Your task to perform on an android device: Open network settings Image 0: 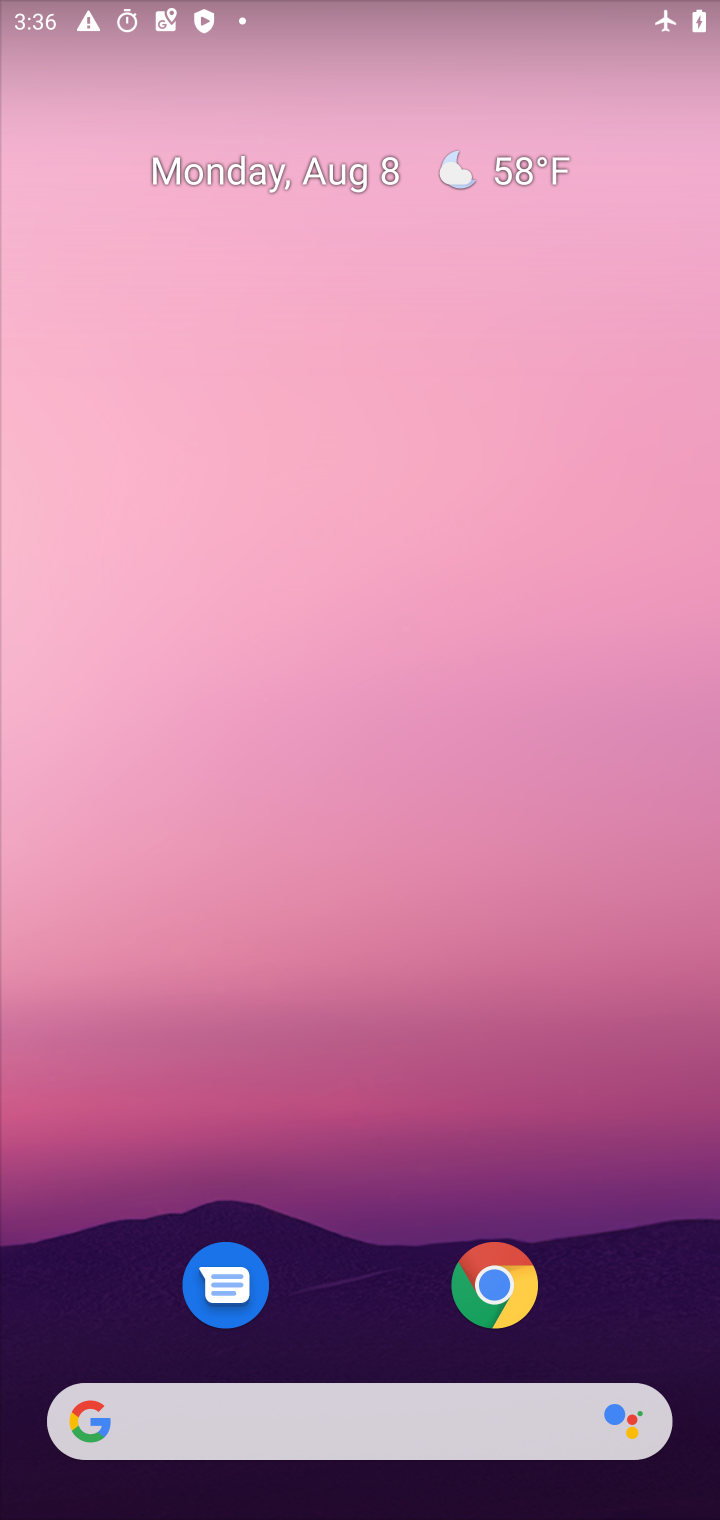
Step 0: drag from (375, 1162) to (429, 61)
Your task to perform on an android device: Open network settings Image 1: 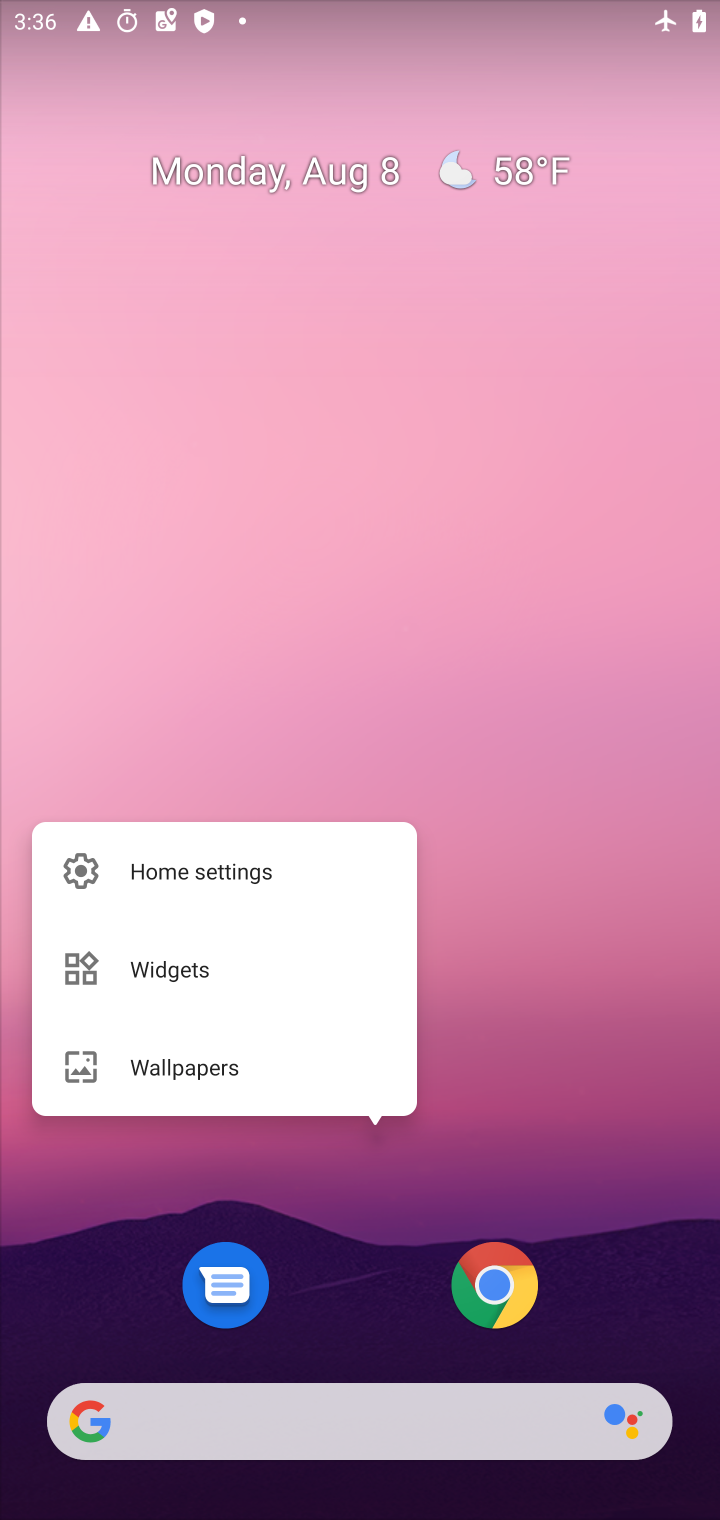
Step 1: drag from (306, 1270) to (498, 111)
Your task to perform on an android device: Open network settings Image 2: 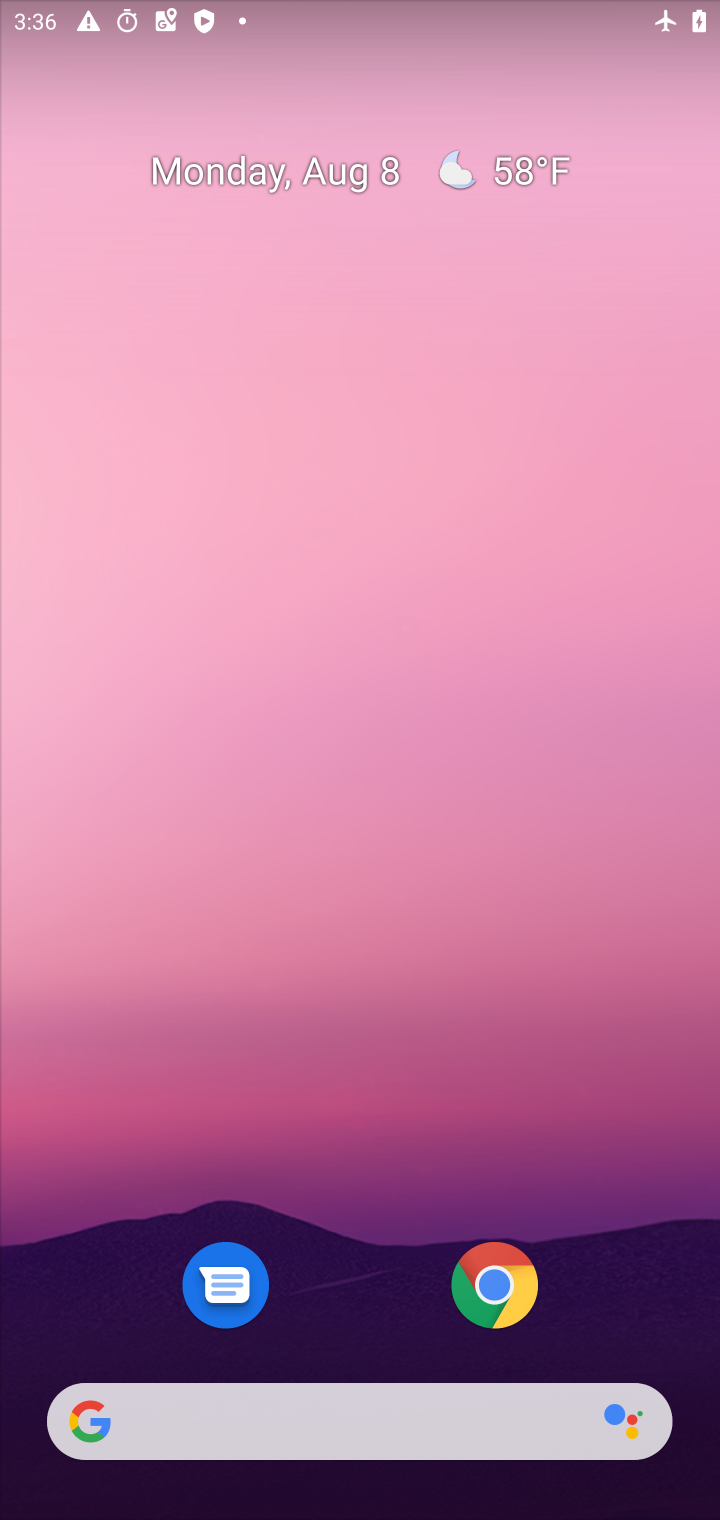
Step 2: drag from (345, 1291) to (401, 114)
Your task to perform on an android device: Open network settings Image 3: 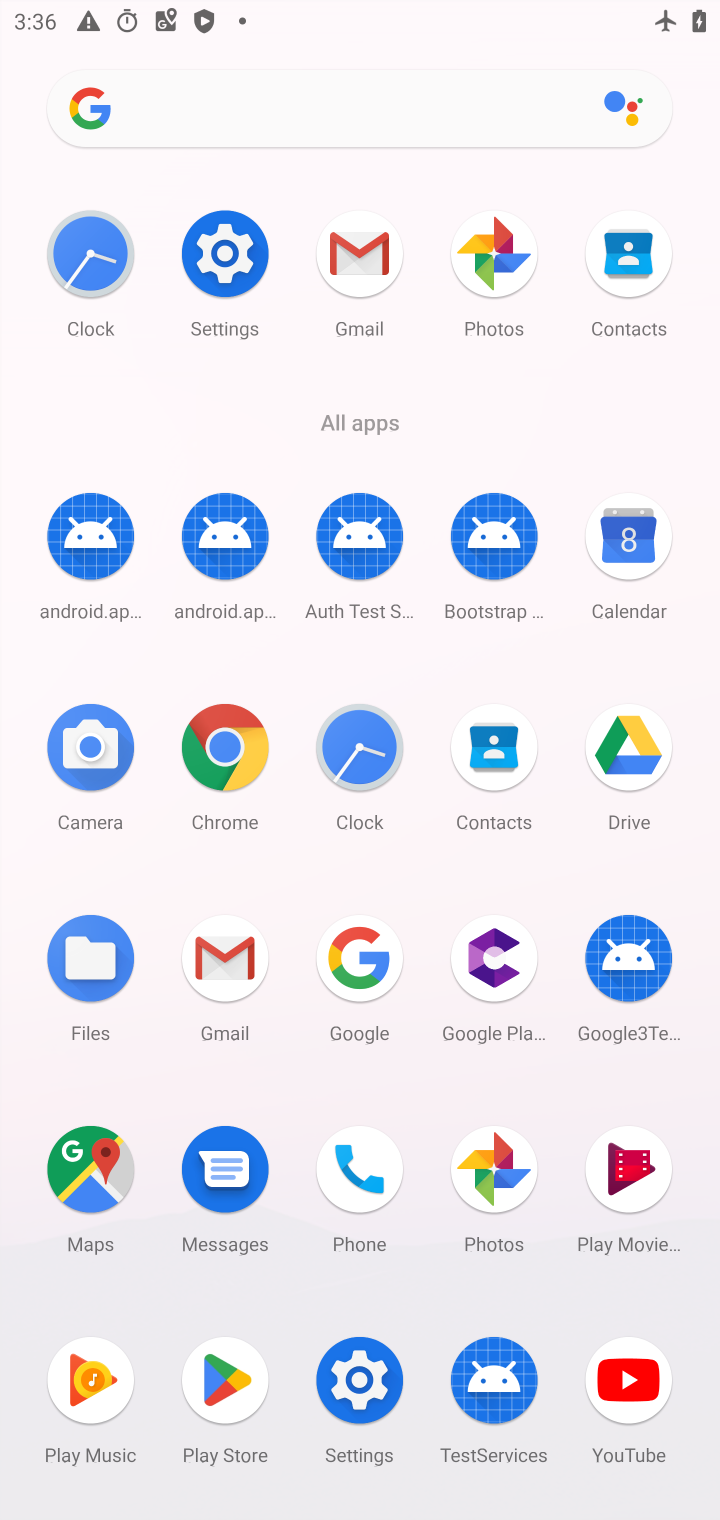
Step 3: click (229, 331)
Your task to perform on an android device: Open network settings Image 4: 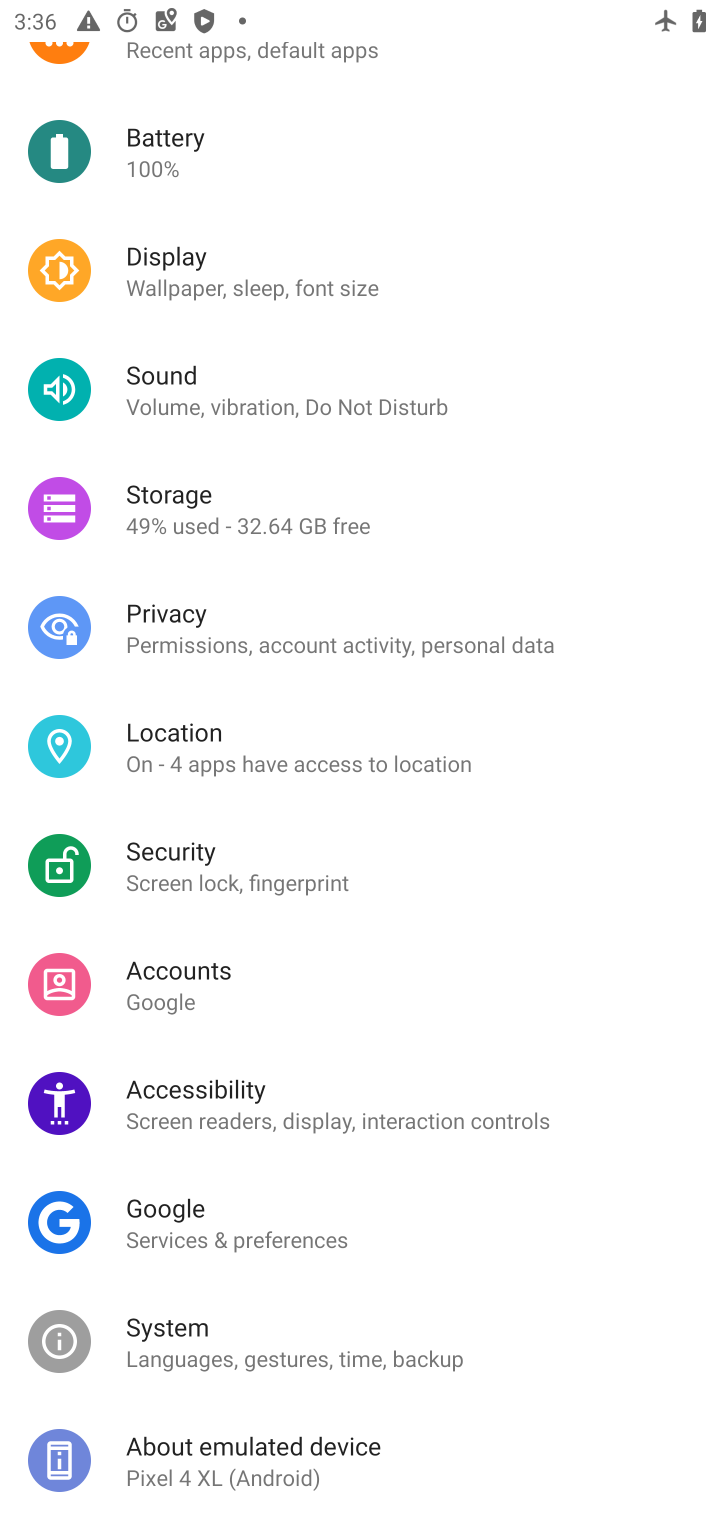
Step 4: drag from (296, 301) to (394, 1263)
Your task to perform on an android device: Open network settings Image 5: 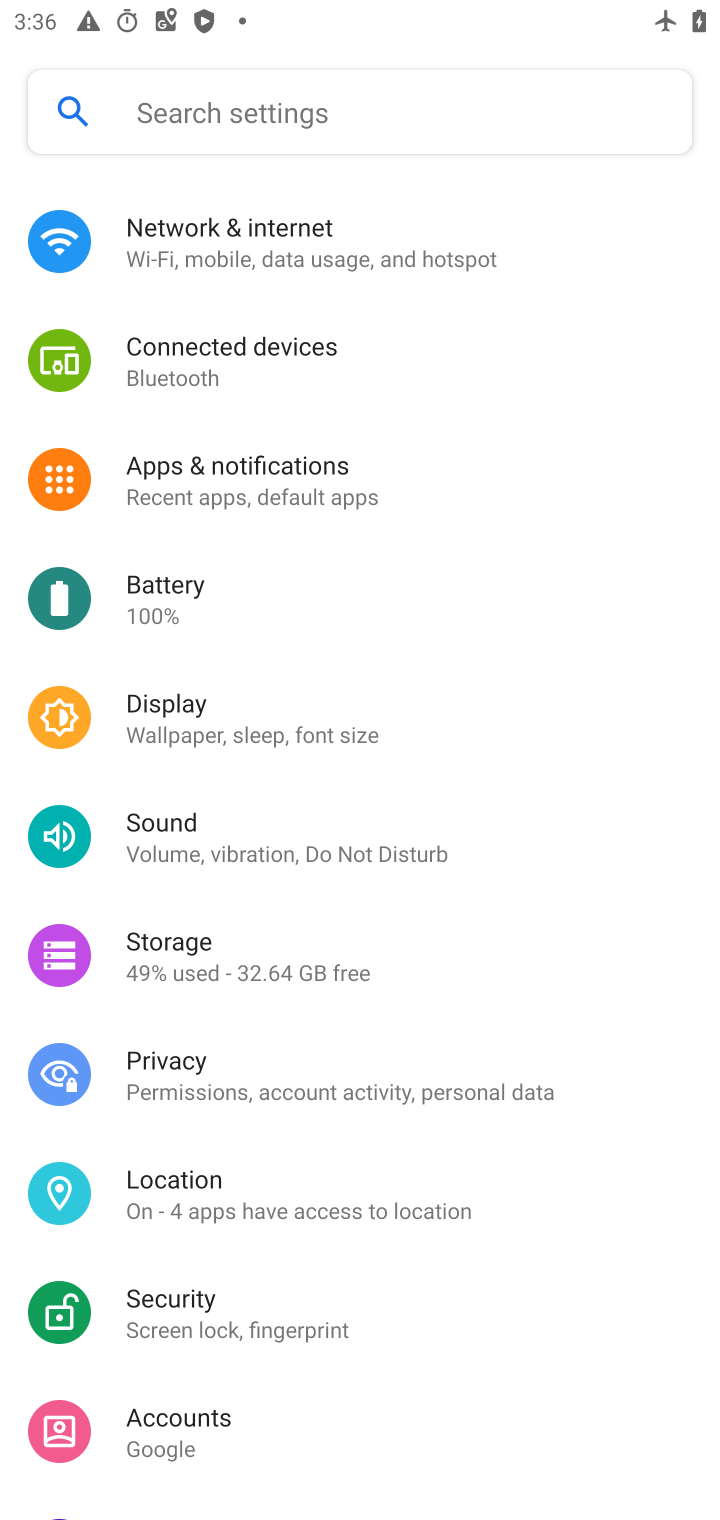
Step 5: click (253, 216)
Your task to perform on an android device: Open network settings Image 6: 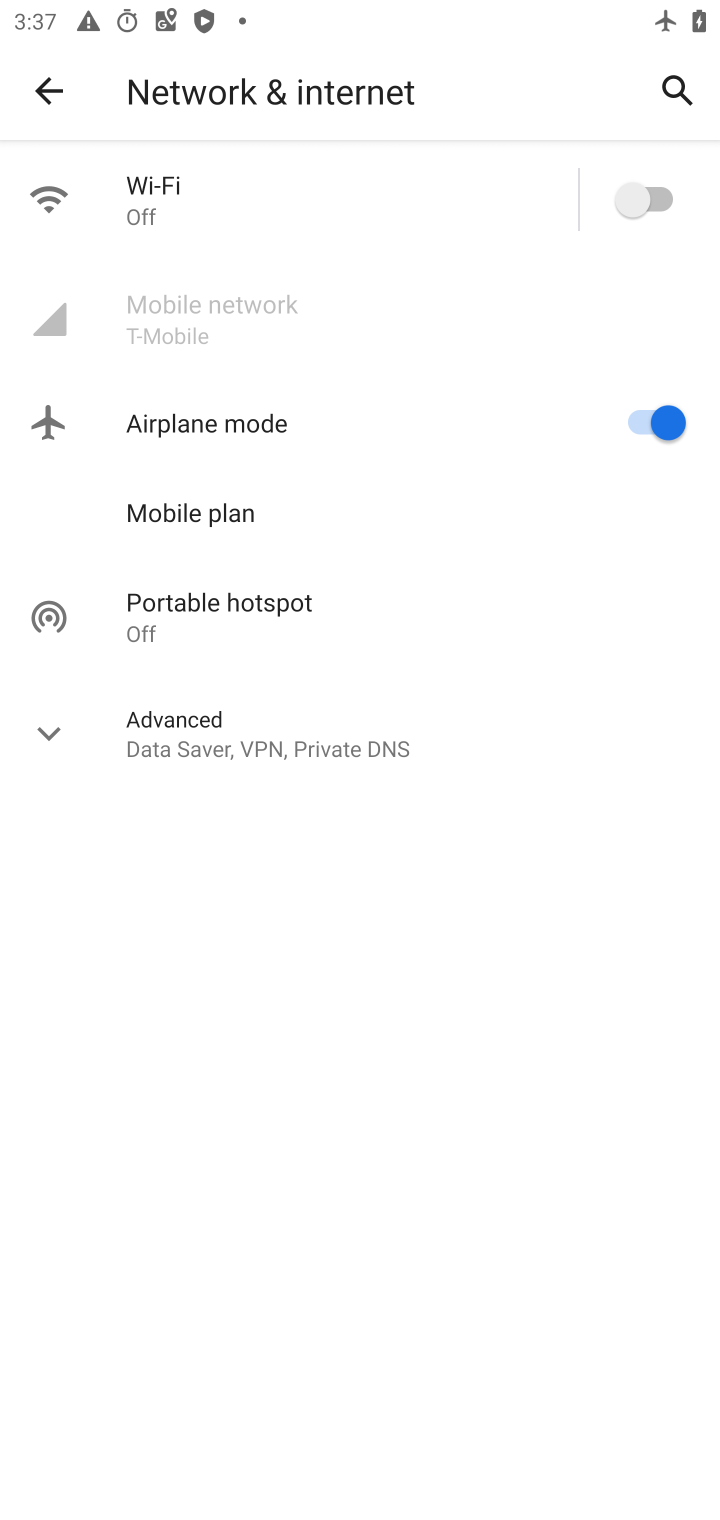
Step 6: task complete